Your task to perform on an android device: Open Google Maps and go to "Timeline" Image 0: 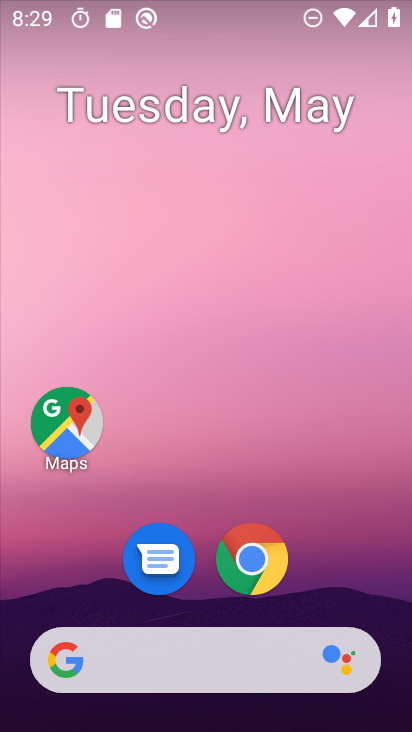
Step 0: drag from (409, 443) to (387, 113)
Your task to perform on an android device: Open Google Maps and go to "Timeline" Image 1: 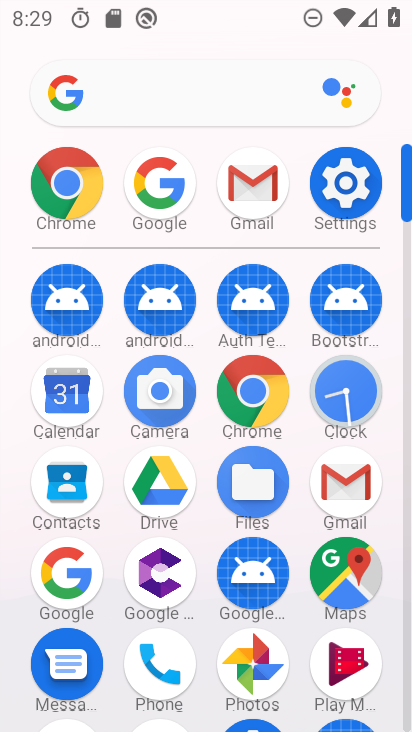
Step 1: click (361, 563)
Your task to perform on an android device: Open Google Maps and go to "Timeline" Image 2: 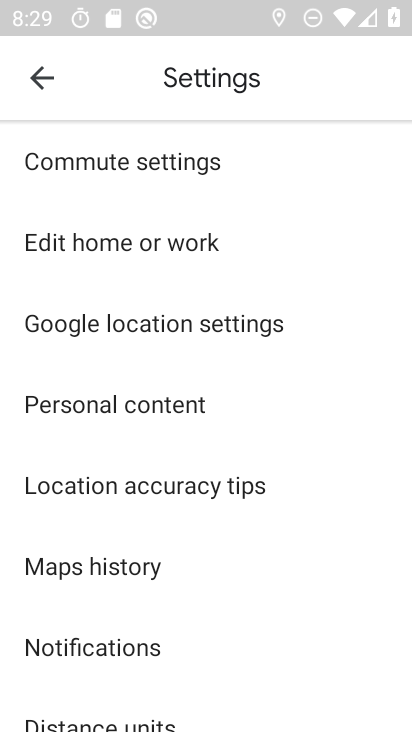
Step 2: press back button
Your task to perform on an android device: Open Google Maps and go to "Timeline" Image 3: 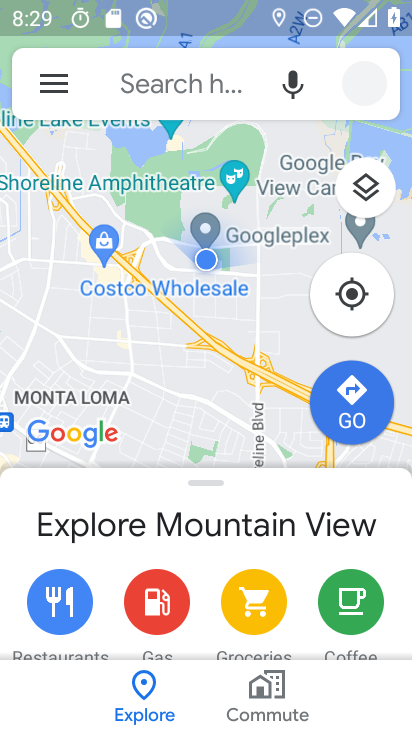
Step 3: click (36, 88)
Your task to perform on an android device: Open Google Maps and go to "Timeline" Image 4: 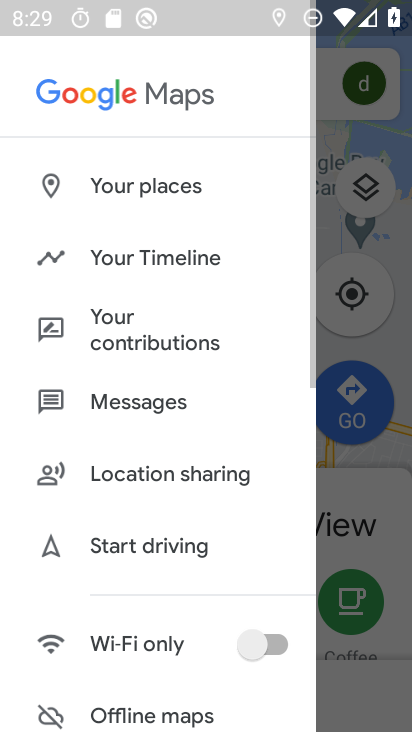
Step 4: click (173, 255)
Your task to perform on an android device: Open Google Maps and go to "Timeline" Image 5: 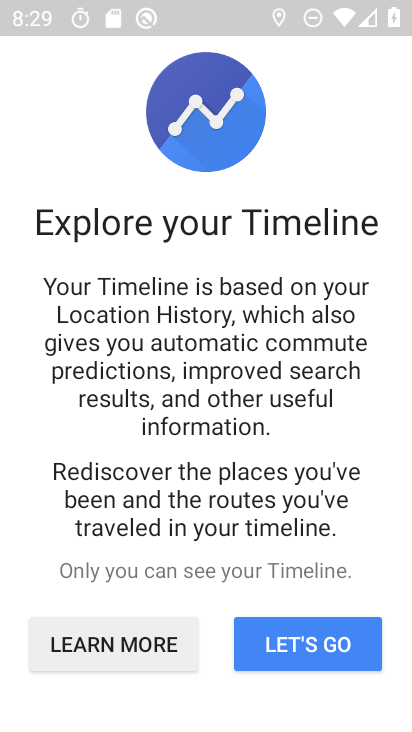
Step 5: task complete